Your task to perform on an android device: Turn off the flashlight Image 0: 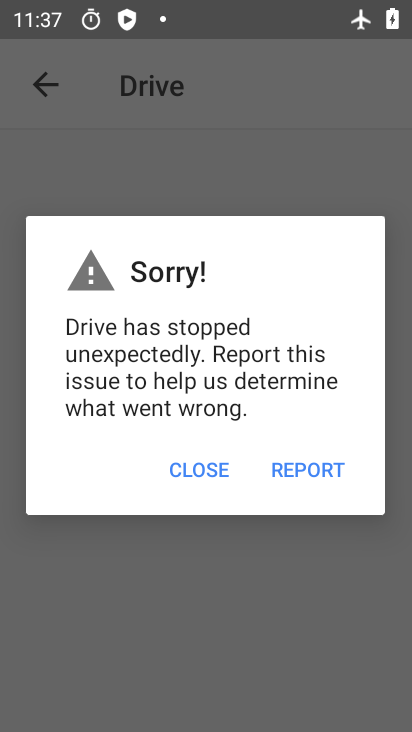
Step 0: press home button
Your task to perform on an android device: Turn off the flashlight Image 1: 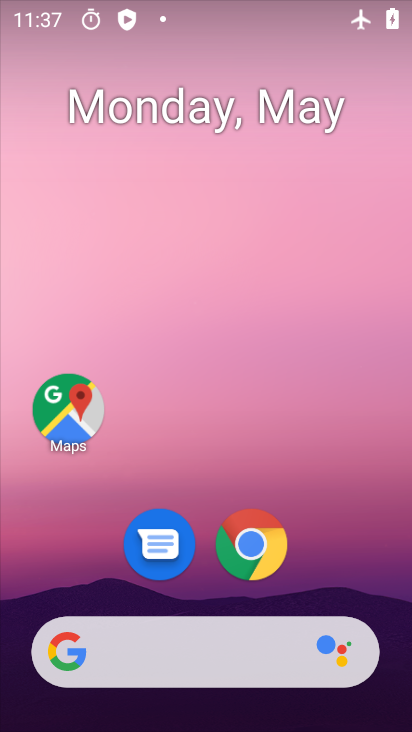
Step 1: drag from (329, 475) to (286, 75)
Your task to perform on an android device: Turn off the flashlight Image 2: 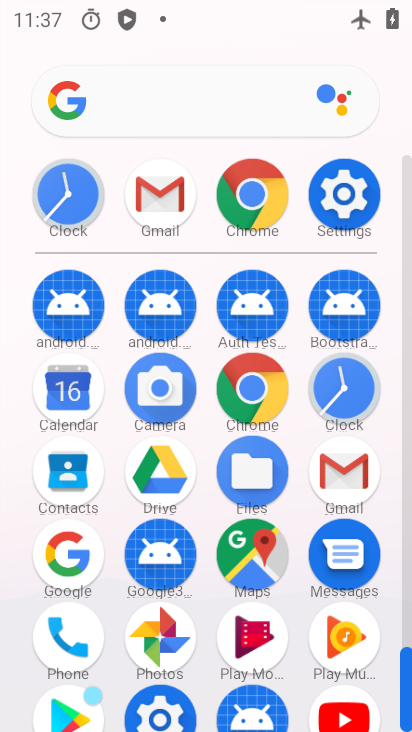
Step 2: click (367, 190)
Your task to perform on an android device: Turn off the flashlight Image 3: 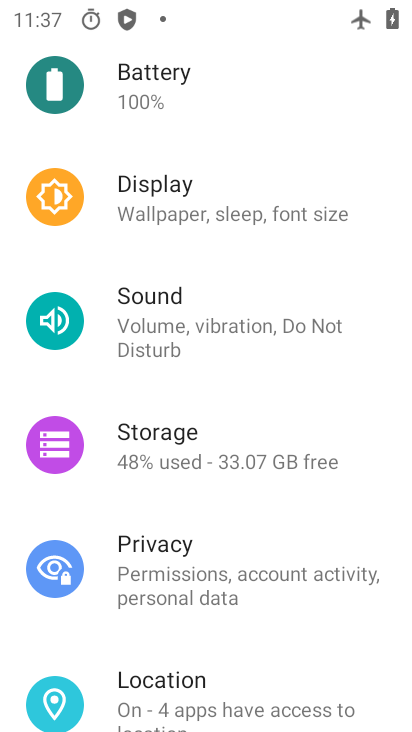
Step 3: drag from (354, 166) to (335, 585)
Your task to perform on an android device: Turn off the flashlight Image 4: 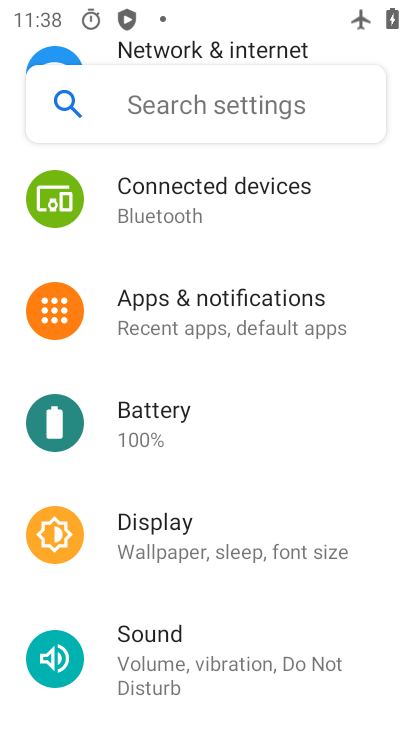
Step 4: drag from (346, 178) to (296, 633)
Your task to perform on an android device: Turn off the flashlight Image 5: 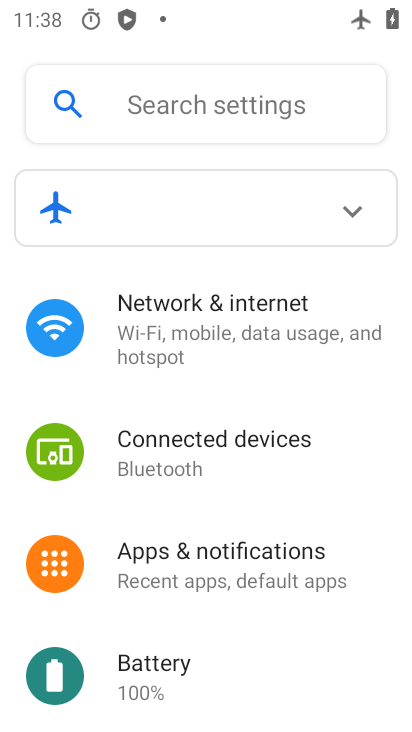
Step 5: click (73, 225)
Your task to perform on an android device: Turn off the flashlight Image 6: 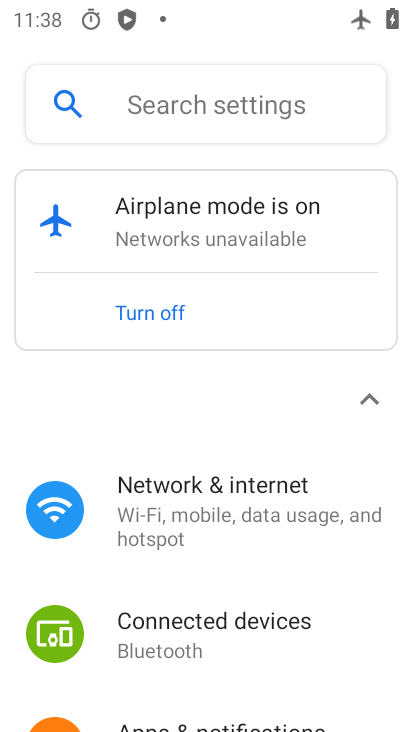
Step 6: click (172, 301)
Your task to perform on an android device: Turn off the flashlight Image 7: 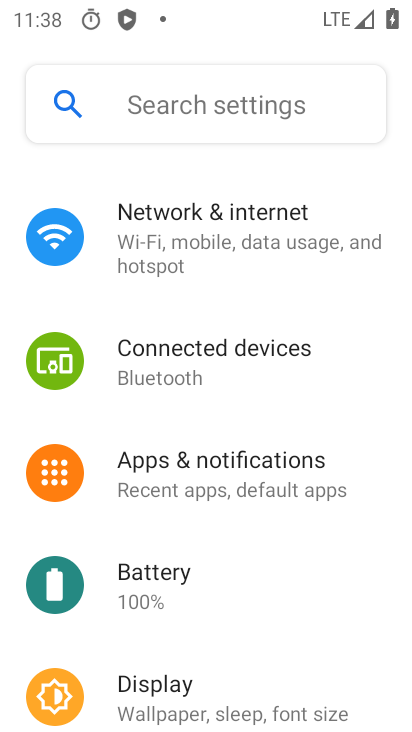
Step 7: click (187, 116)
Your task to perform on an android device: Turn off the flashlight Image 8: 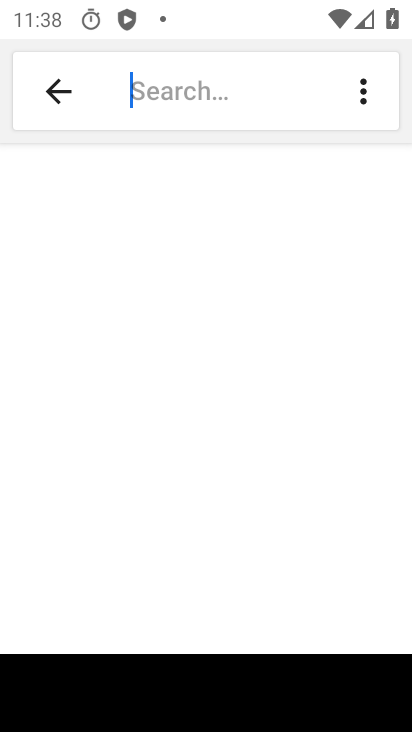
Step 8: type "flashlight"
Your task to perform on an android device: Turn off the flashlight Image 9: 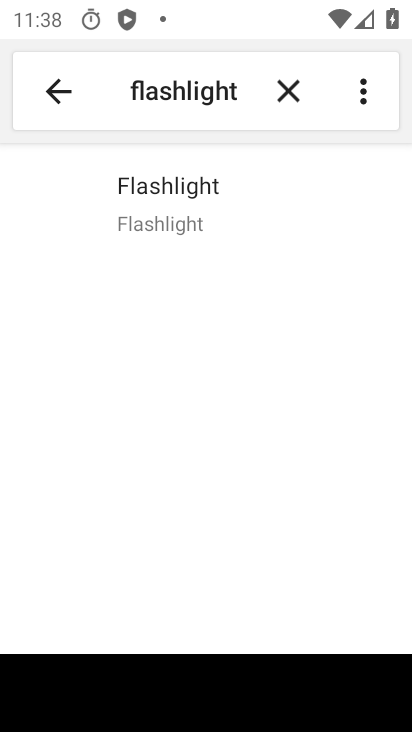
Step 9: task complete